Your task to perform on an android device: turn notification dots on Image 0: 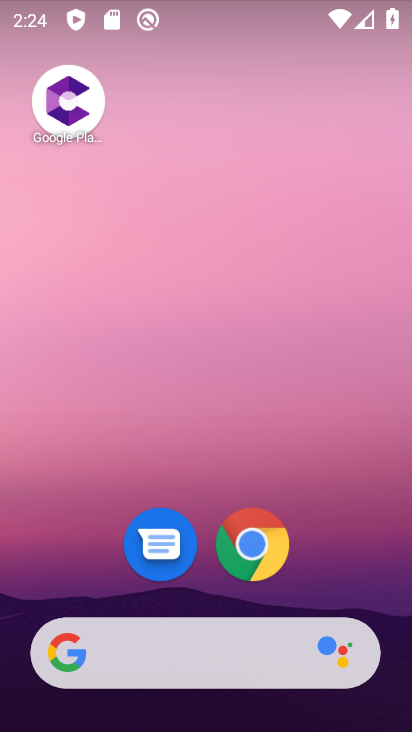
Step 0: drag from (82, 590) to (180, 135)
Your task to perform on an android device: turn notification dots on Image 1: 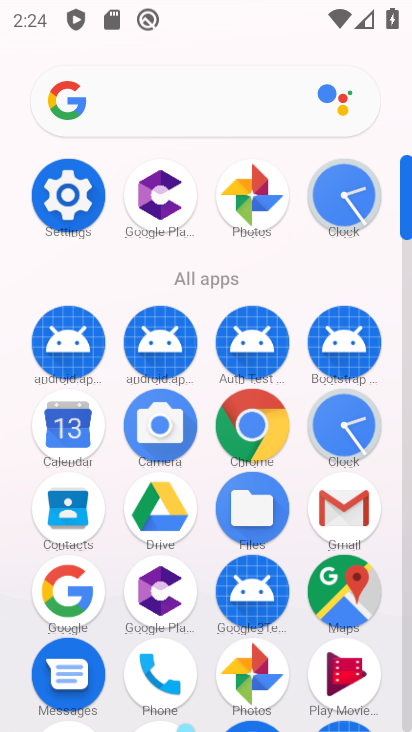
Step 1: drag from (177, 621) to (254, 383)
Your task to perform on an android device: turn notification dots on Image 2: 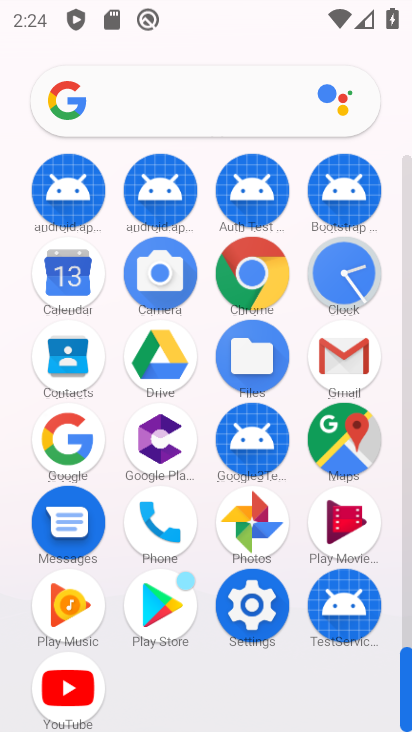
Step 2: click (253, 615)
Your task to perform on an android device: turn notification dots on Image 3: 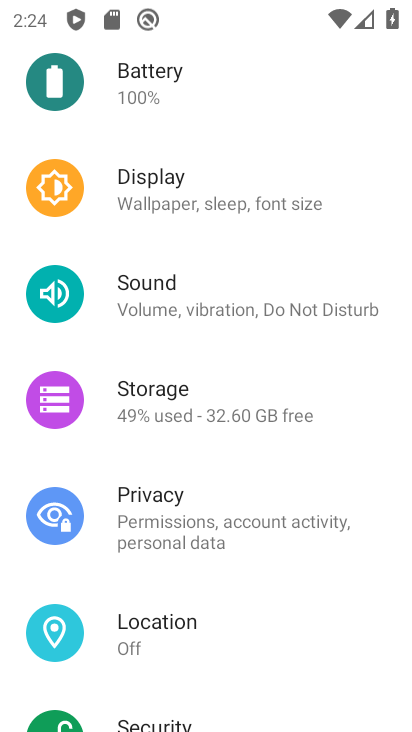
Step 3: drag from (219, 346) to (215, 655)
Your task to perform on an android device: turn notification dots on Image 4: 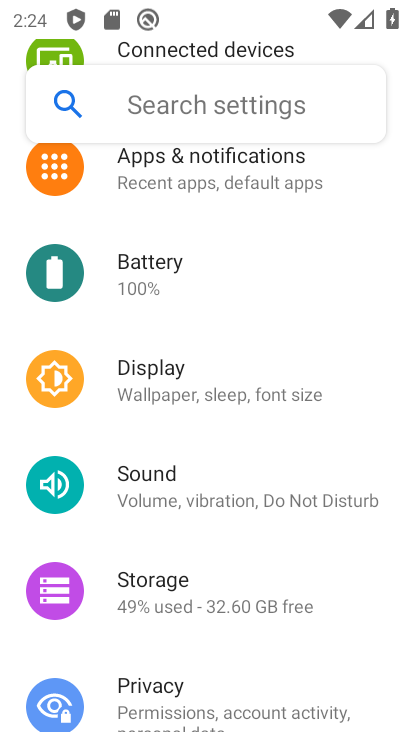
Step 4: click (263, 172)
Your task to perform on an android device: turn notification dots on Image 5: 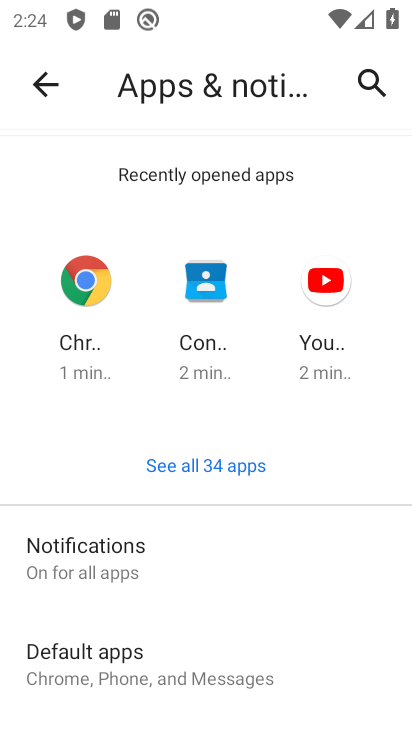
Step 5: drag from (275, 591) to (357, 336)
Your task to perform on an android device: turn notification dots on Image 6: 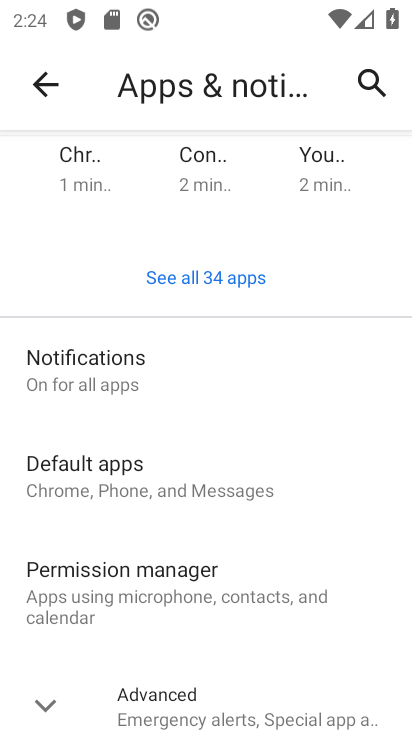
Step 6: click (189, 371)
Your task to perform on an android device: turn notification dots on Image 7: 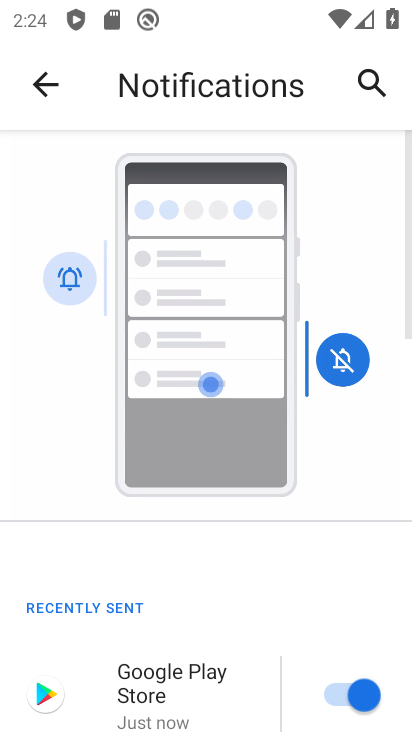
Step 7: drag from (180, 613) to (331, 169)
Your task to perform on an android device: turn notification dots on Image 8: 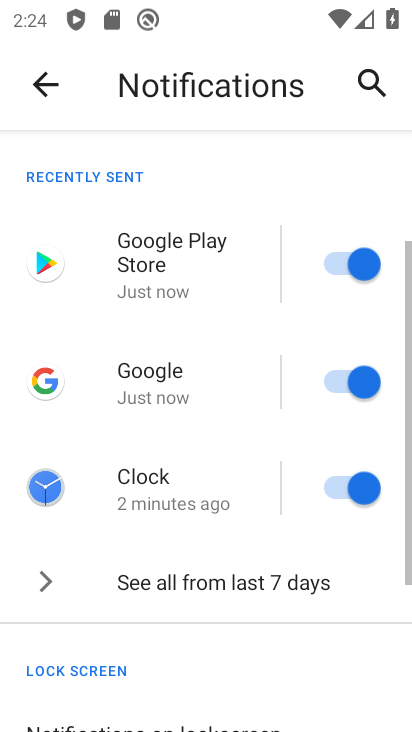
Step 8: drag from (225, 512) to (319, 233)
Your task to perform on an android device: turn notification dots on Image 9: 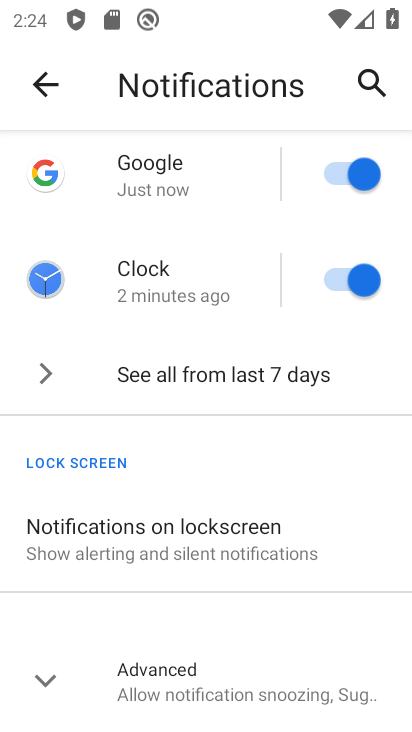
Step 9: click (221, 658)
Your task to perform on an android device: turn notification dots on Image 10: 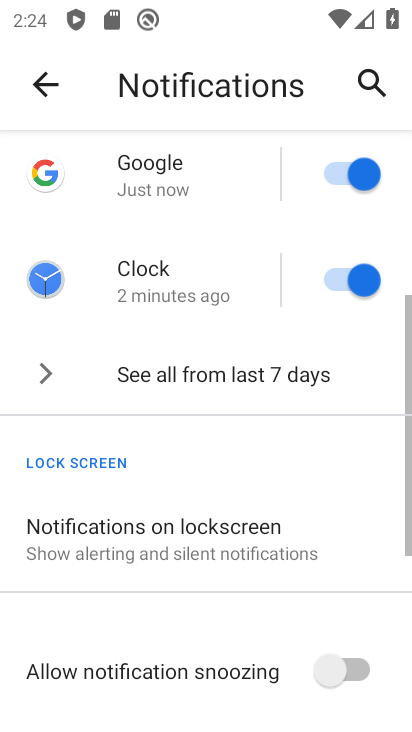
Step 10: task complete